Your task to perform on an android device: install app "Pinterest" Image 0: 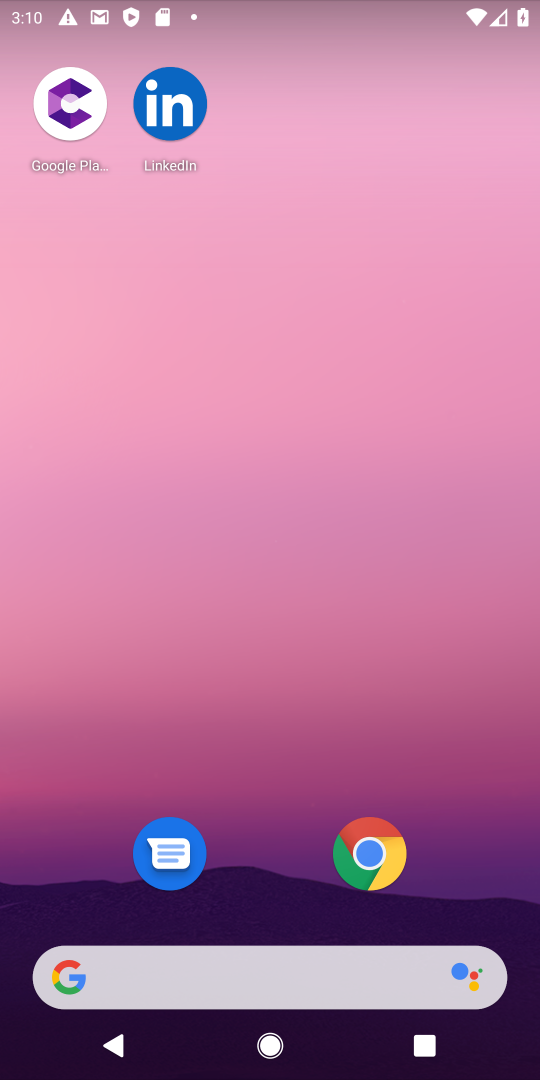
Step 0: click (298, 1073)
Your task to perform on an android device: install app "Pinterest" Image 1: 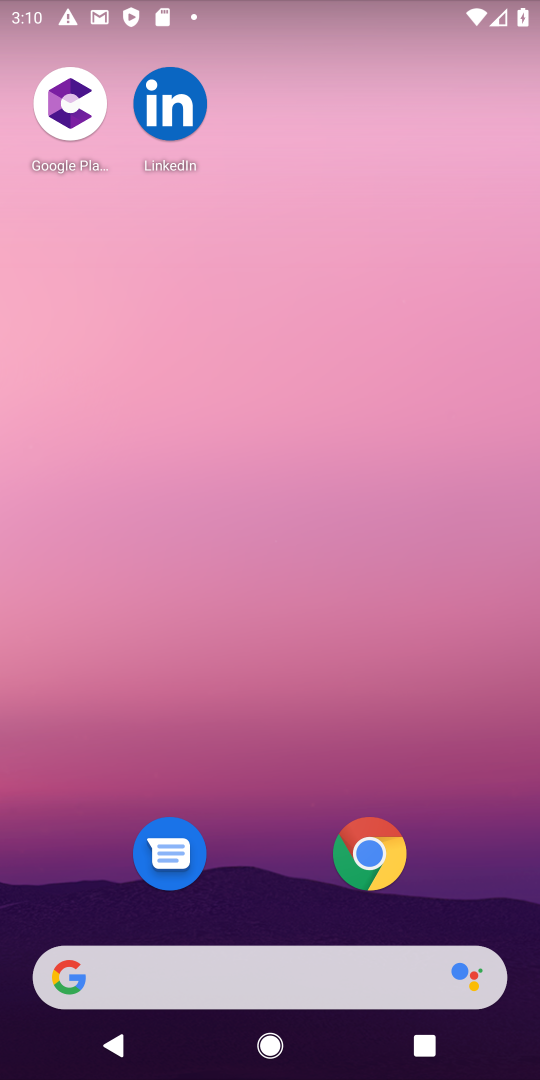
Step 1: drag from (298, 592) to (346, 76)
Your task to perform on an android device: install app "Pinterest" Image 2: 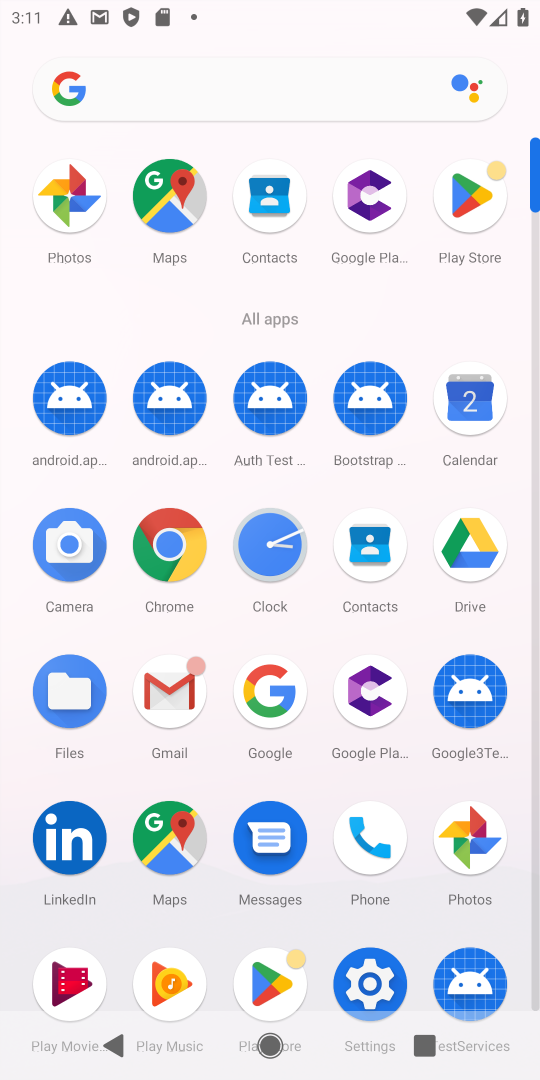
Step 2: click (469, 202)
Your task to perform on an android device: install app "Pinterest" Image 3: 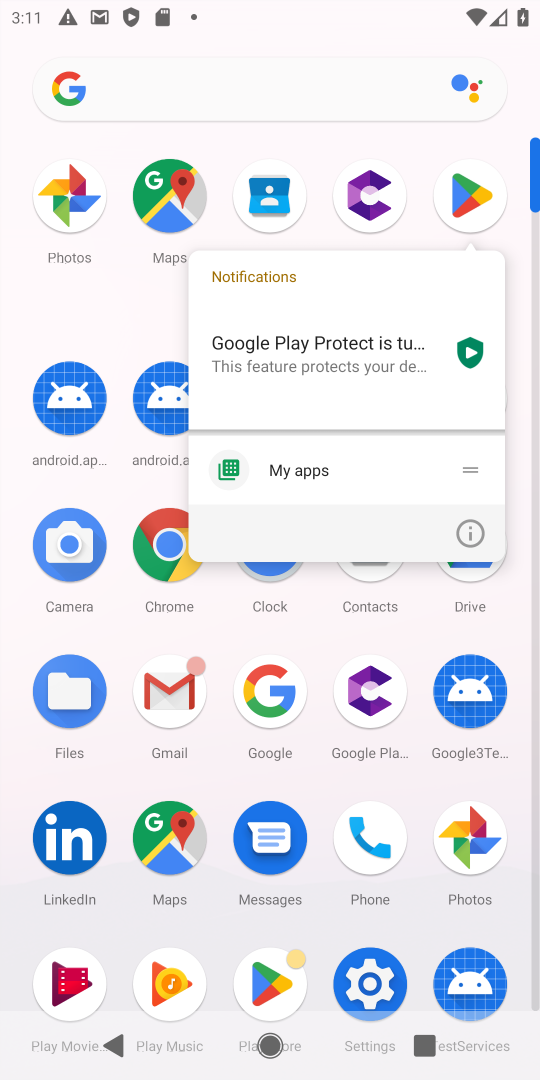
Step 3: click (463, 211)
Your task to perform on an android device: install app "Pinterest" Image 4: 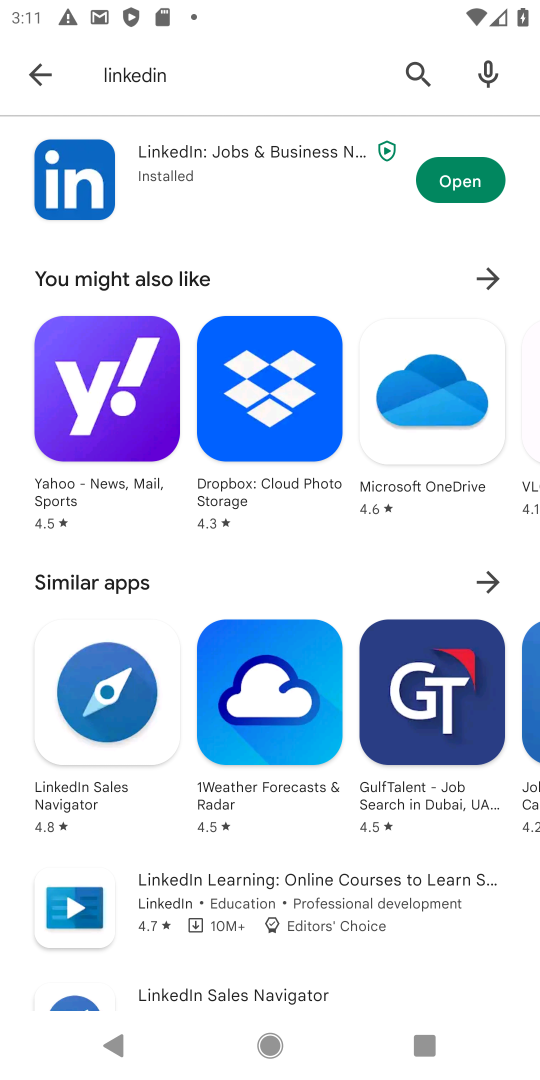
Step 4: click (417, 65)
Your task to perform on an android device: install app "Pinterest" Image 5: 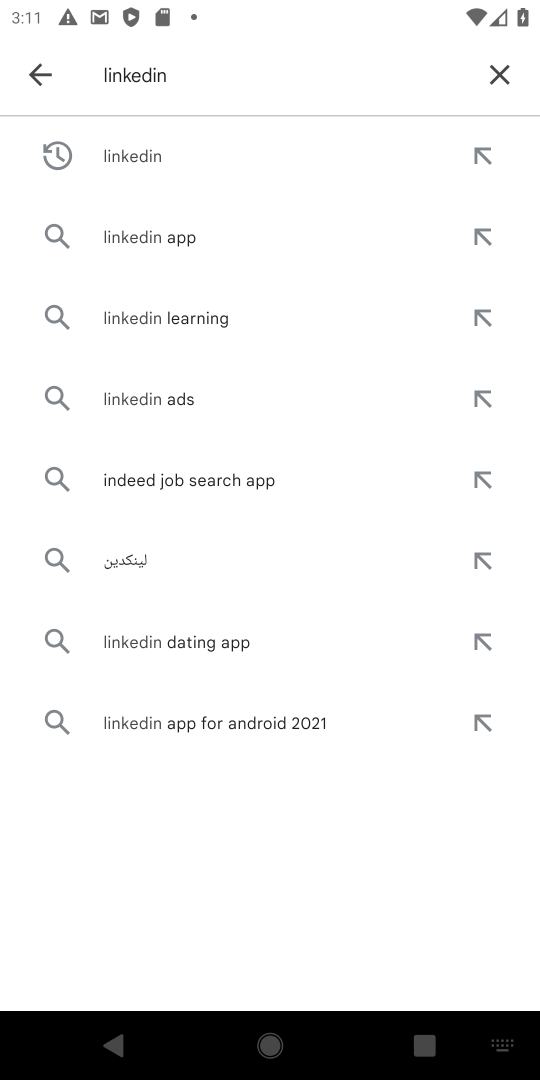
Step 5: click (500, 70)
Your task to perform on an android device: install app "Pinterest" Image 6: 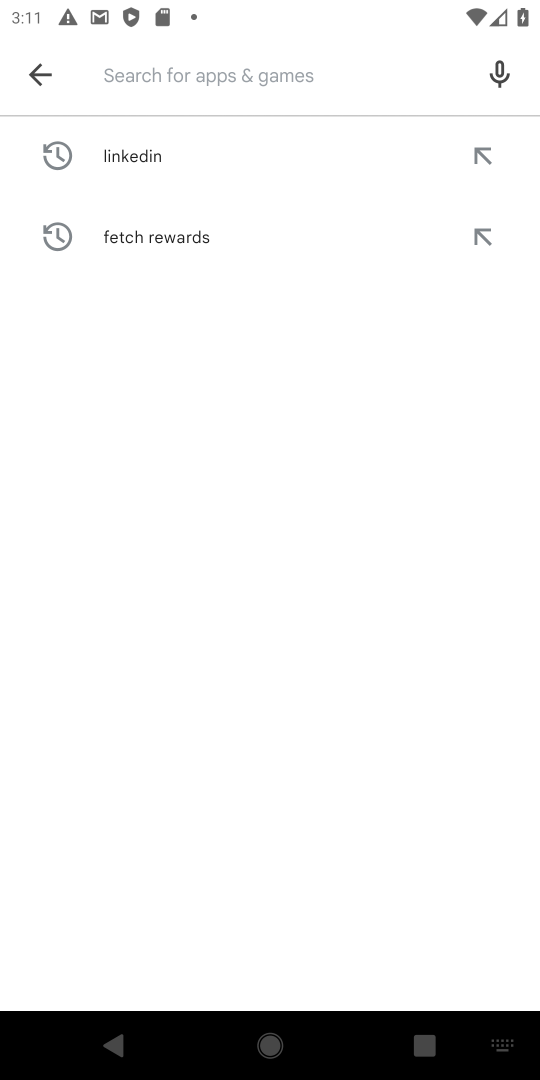
Step 6: type "Pinterest"
Your task to perform on an android device: install app "Pinterest" Image 7: 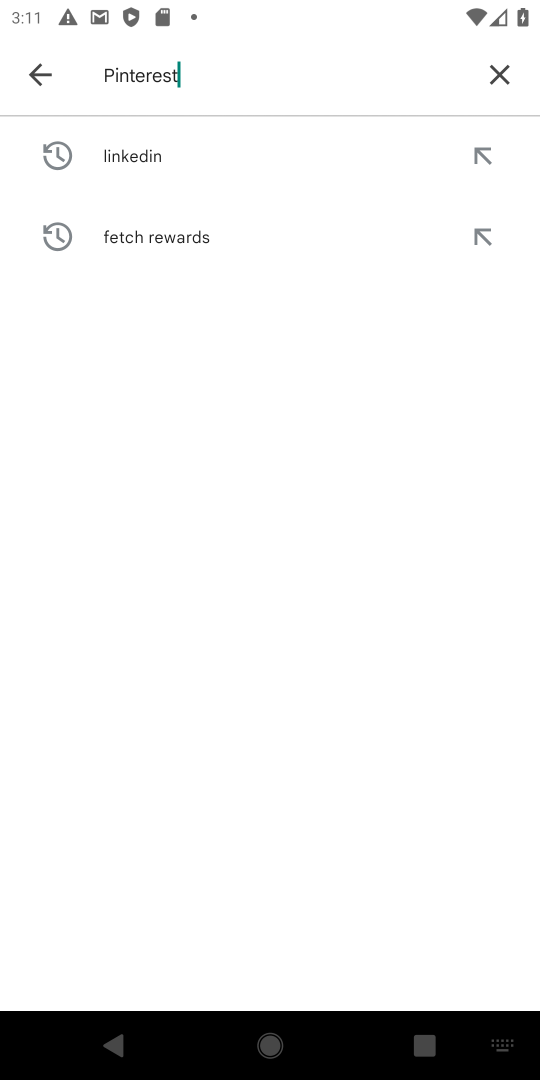
Step 7: type ""
Your task to perform on an android device: install app "Pinterest" Image 8: 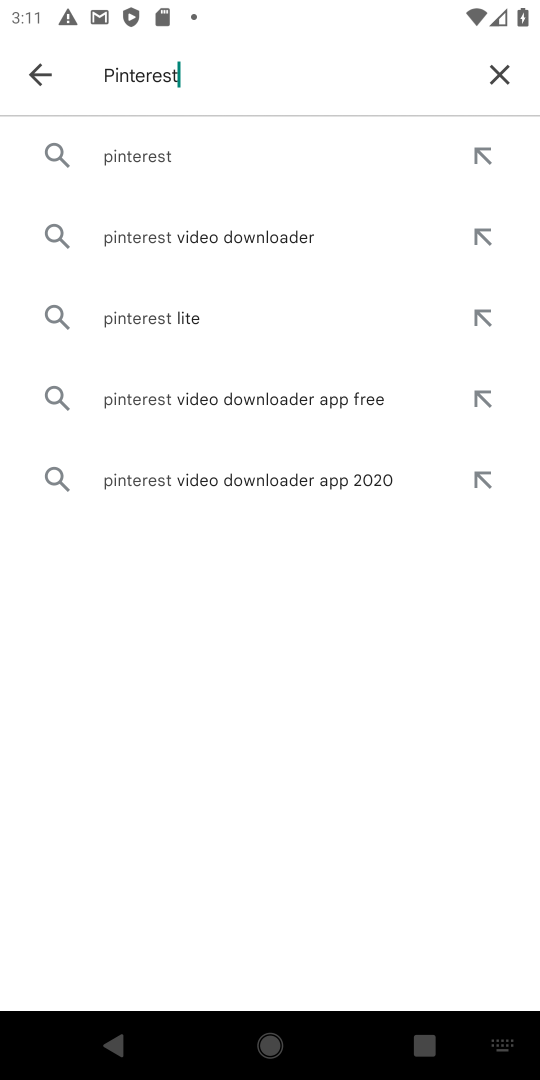
Step 8: click (133, 157)
Your task to perform on an android device: install app "Pinterest" Image 9: 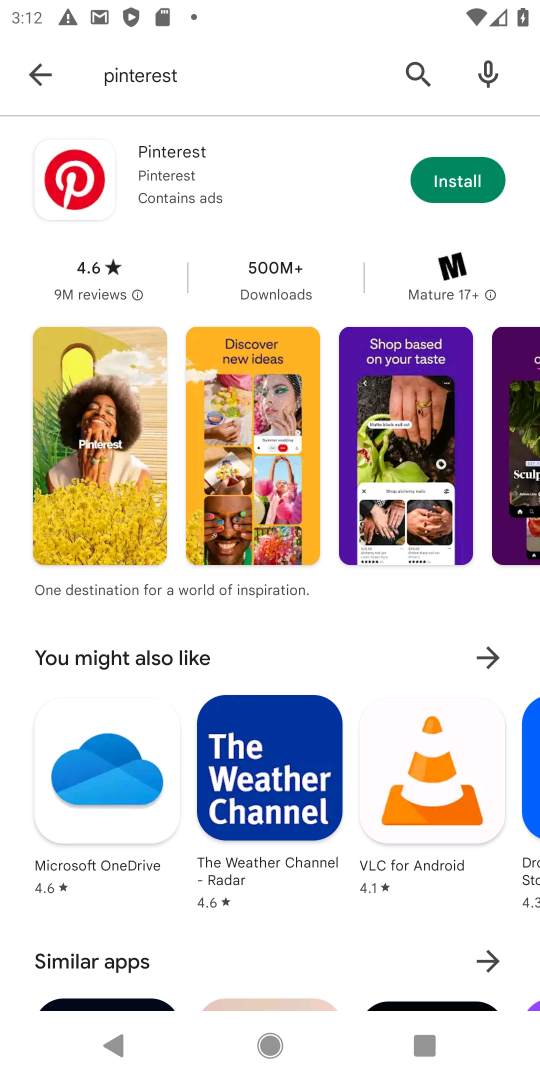
Step 9: click (460, 177)
Your task to perform on an android device: install app "Pinterest" Image 10: 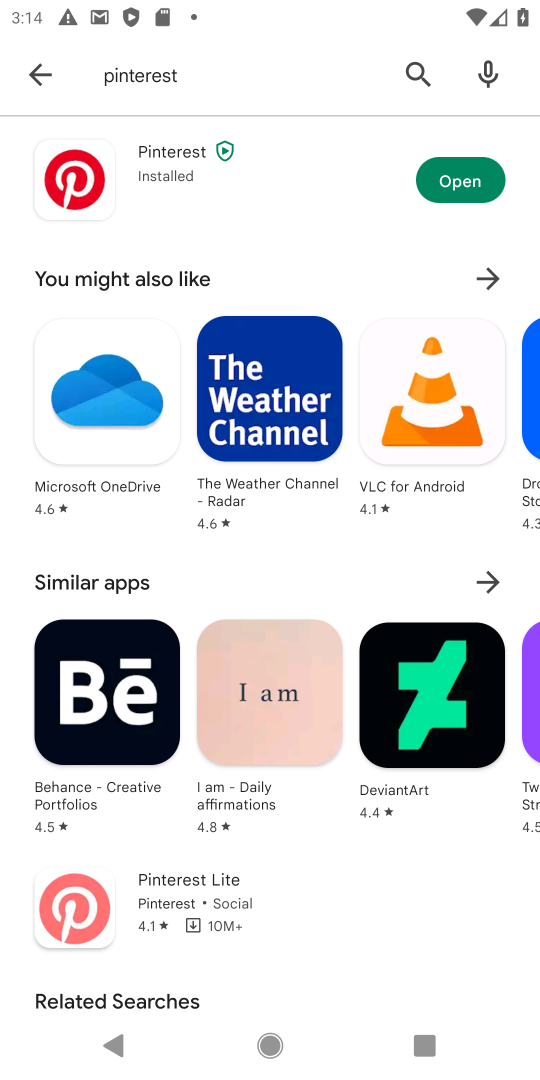
Step 10: task complete